Your task to perform on an android device: Who is the prime minister of Canada? Image 0: 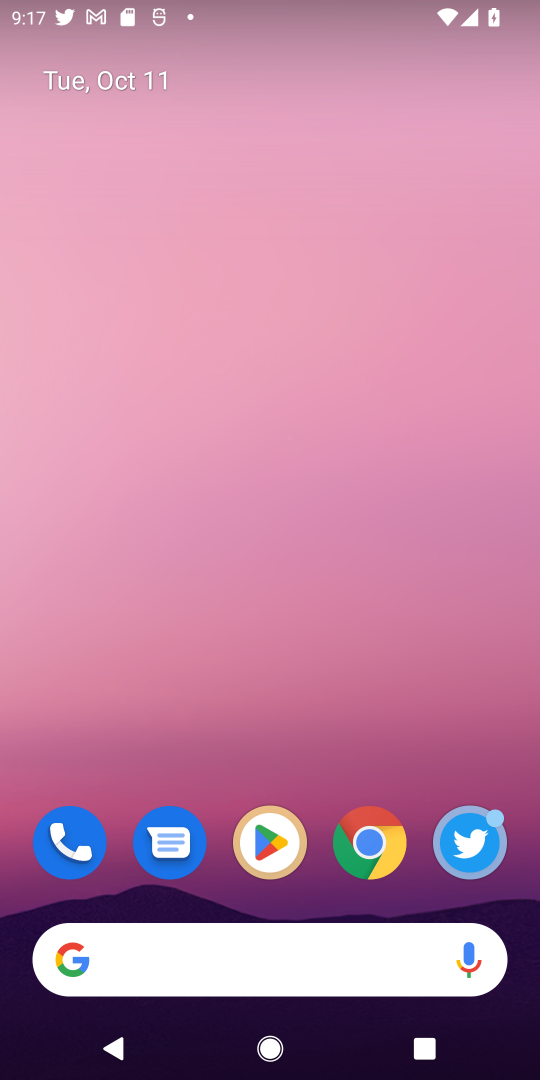
Step 0: click (366, 849)
Your task to perform on an android device: Who is the prime minister of Canada? Image 1: 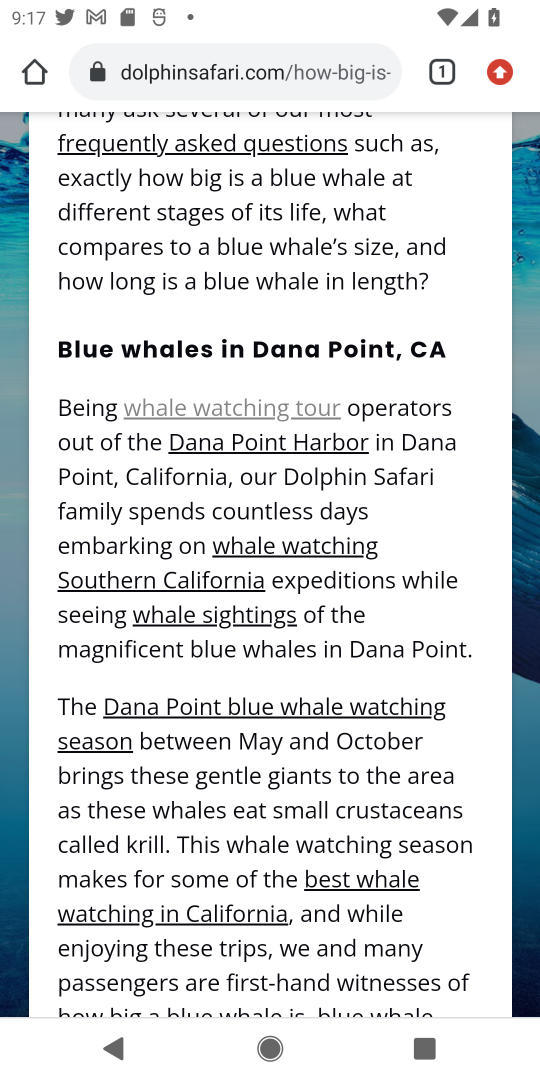
Step 1: click (200, 56)
Your task to perform on an android device: Who is the prime minister of Canada? Image 2: 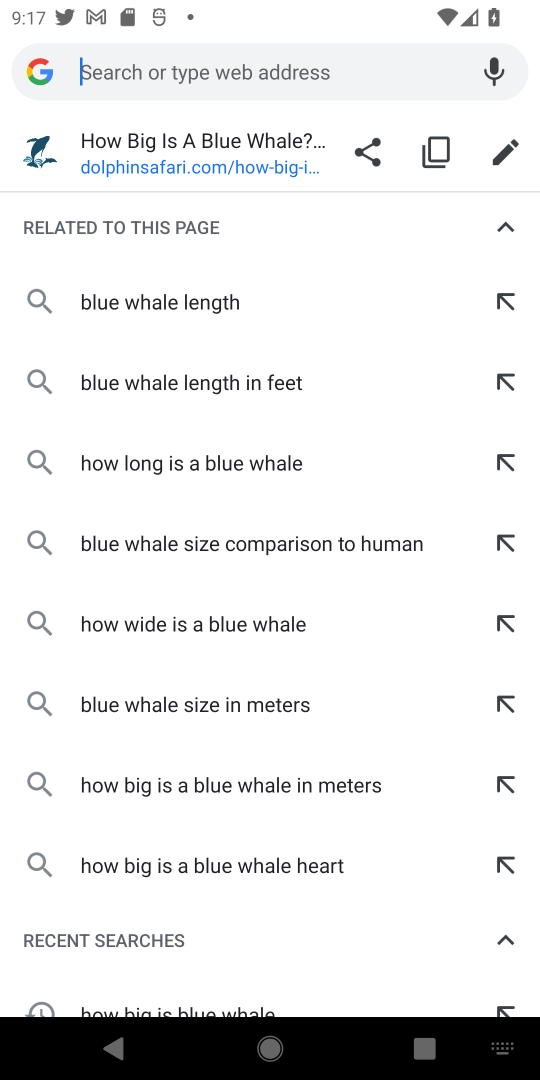
Step 2: type "prime minister of canada"
Your task to perform on an android device: Who is the prime minister of Canada? Image 3: 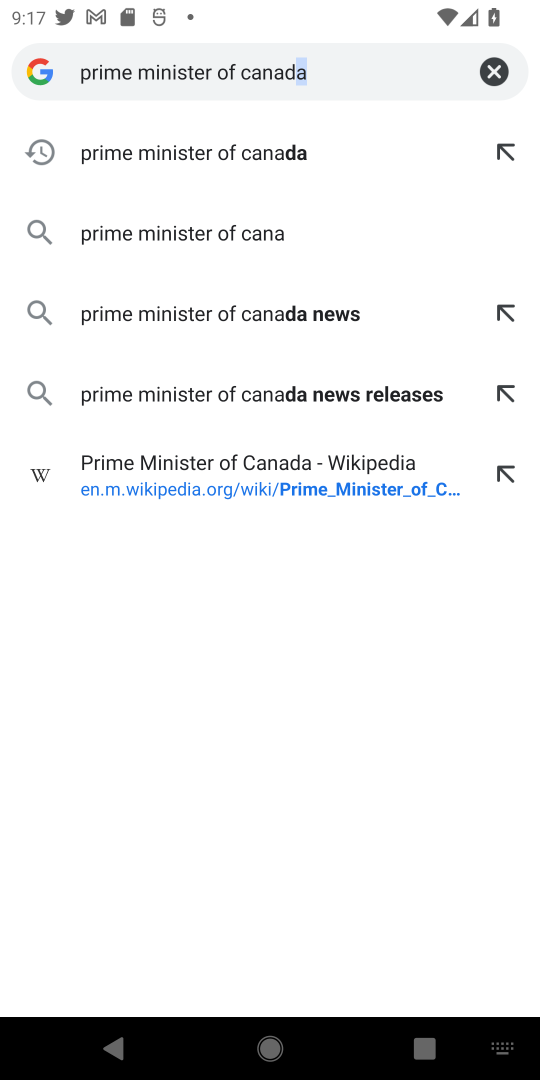
Step 3: type ""
Your task to perform on an android device: Who is the prime minister of Canada? Image 4: 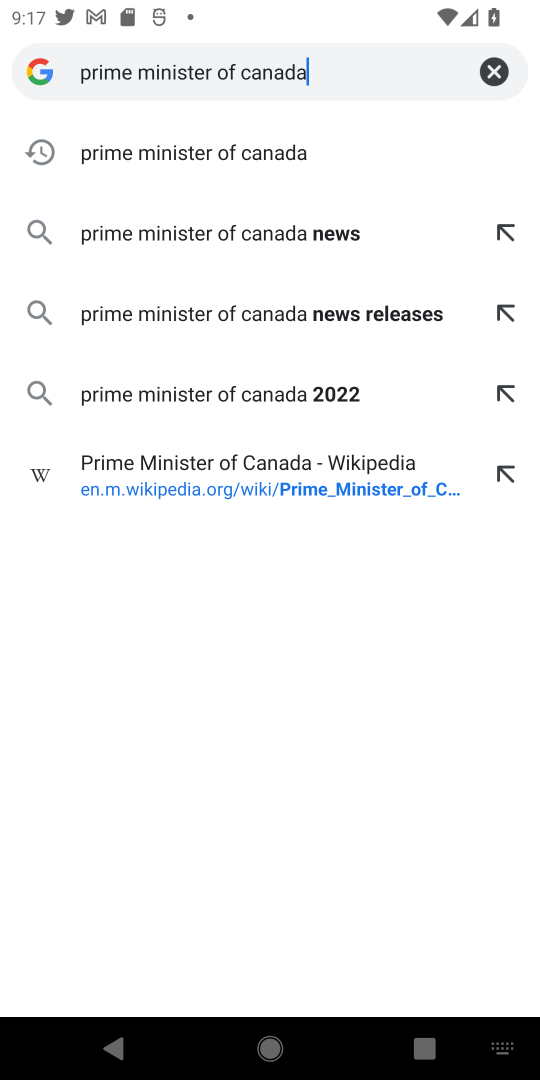
Step 4: click (191, 153)
Your task to perform on an android device: Who is the prime minister of Canada? Image 5: 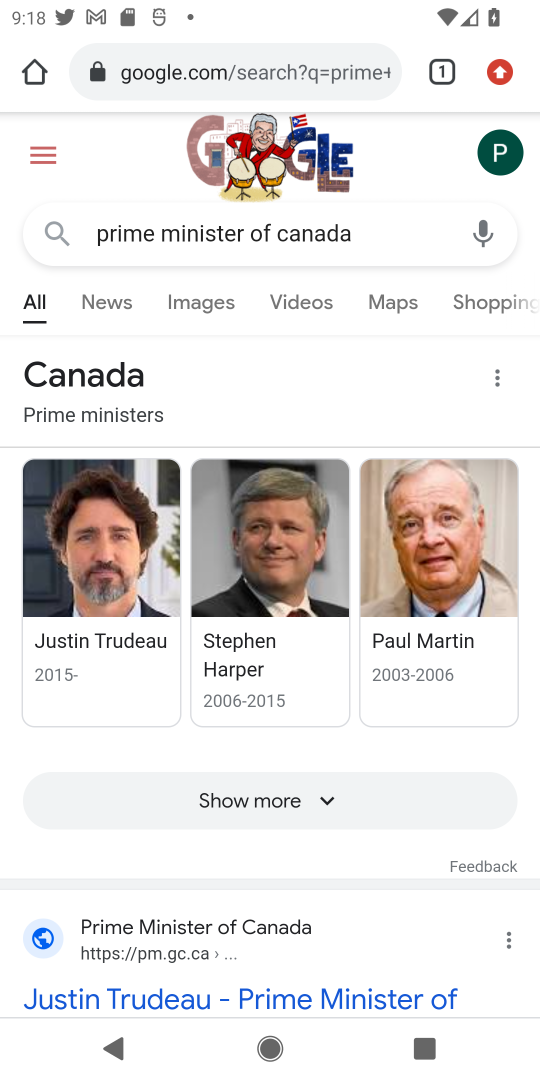
Step 5: task complete